Your task to perform on an android device: Go to Reddit.com Image 0: 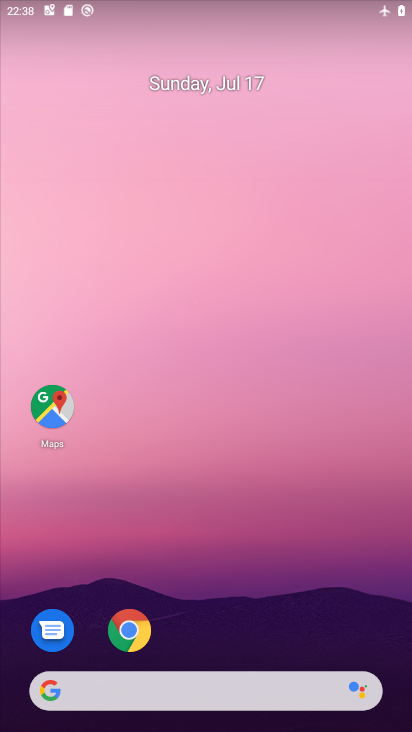
Step 0: click (134, 637)
Your task to perform on an android device: Go to Reddit.com Image 1: 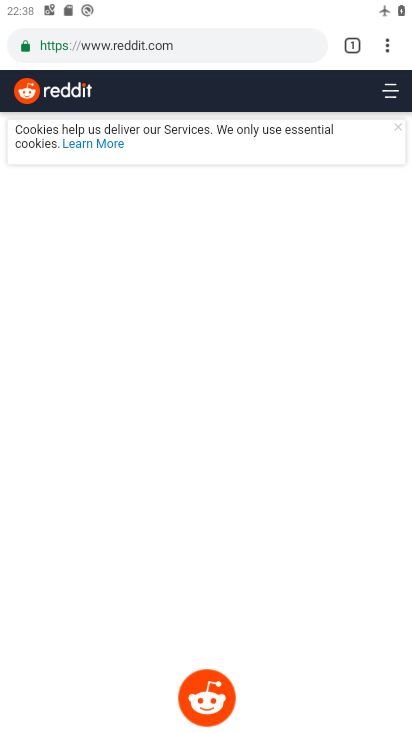
Step 1: click (69, 96)
Your task to perform on an android device: Go to Reddit.com Image 2: 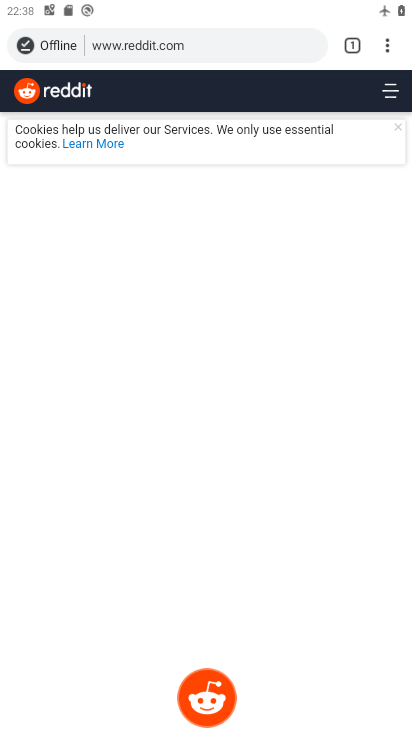
Step 2: task complete